Your task to perform on an android device: clear history in the chrome app Image 0: 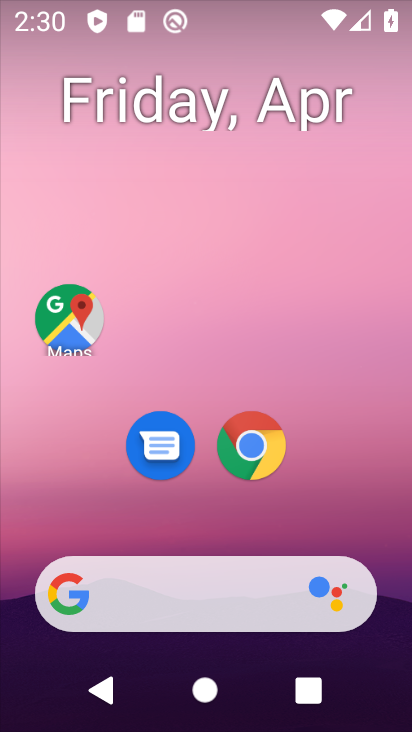
Step 0: click (257, 449)
Your task to perform on an android device: clear history in the chrome app Image 1: 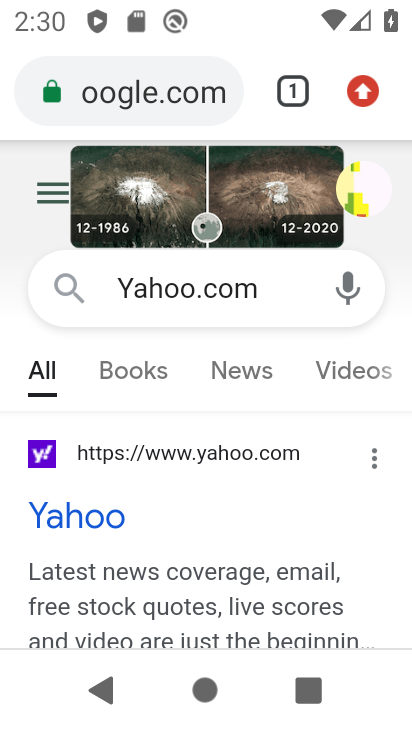
Step 1: click (363, 88)
Your task to perform on an android device: clear history in the chrome app Image 2: 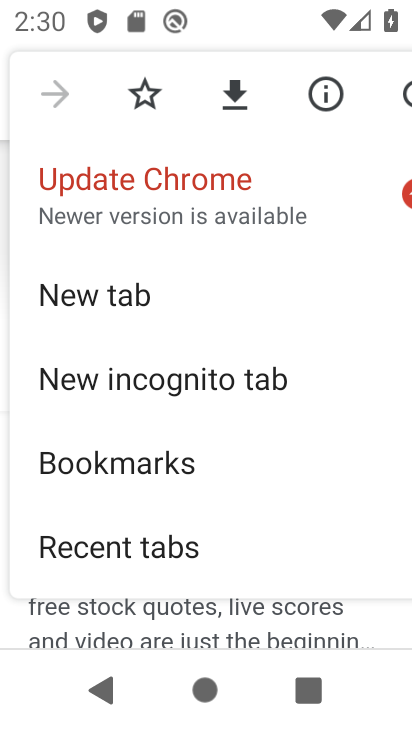
Step 2: drag from (221, 443) to (253, 291)
Your task to perform on an android device: clear history in the chrome app Image 3: 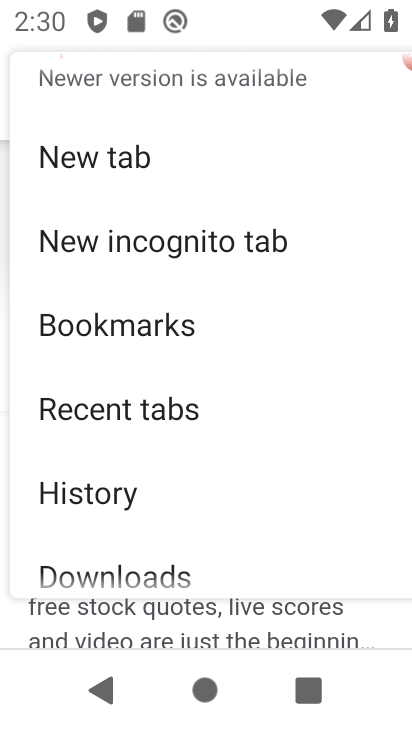
Step 3: drag from (209, 391) to (235, 263)
Your task to perform on an android device: clear history in the chrome app Image 4: 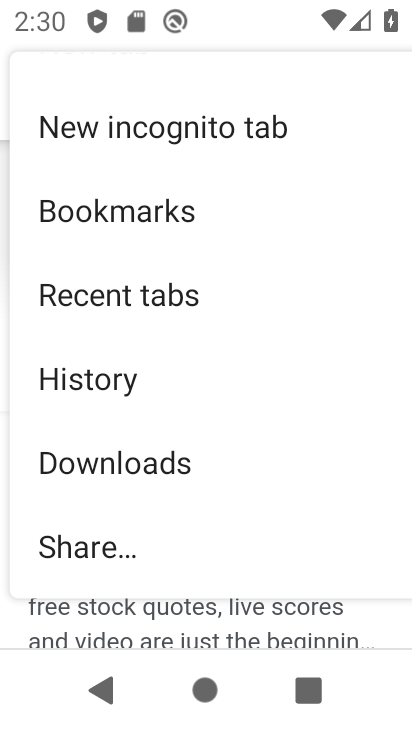
Step 4: click (77, 377)
Your task to perform on an android device: clear history in the chrome app Image 5: 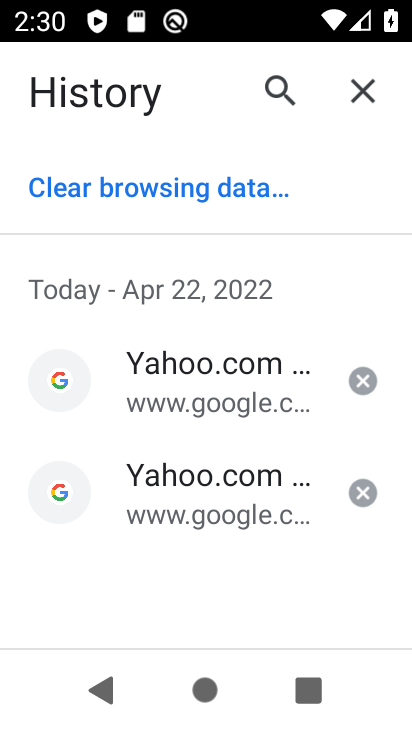
Step 5: click (169, 181)
Your task to perform on an android device: clear history in the chrome app Image 6: 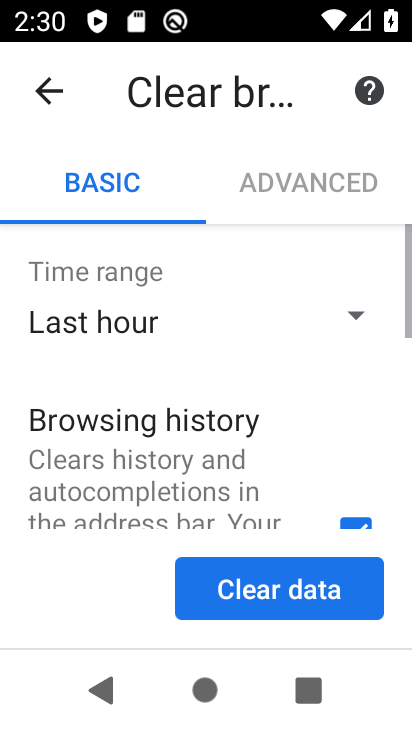
Step 6: click (348, 311)
Your task to perform on an android device: clear history in the chrome app Image 7: 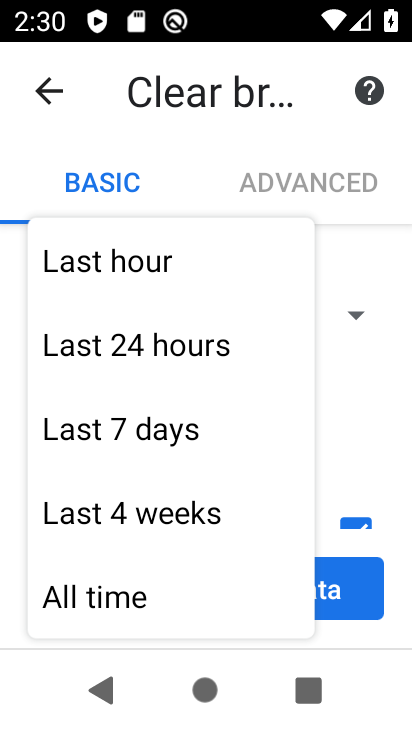
Step 7: click (73, 589)
Your task to perform on an android device: clear history in the chrome app Image 8: 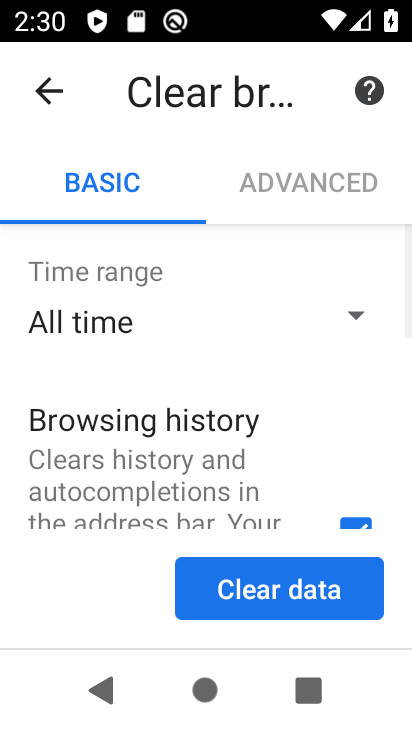
Step 8: click (313, 593)
Your task to perform on an android device: clear history in the chrome app Image 9: 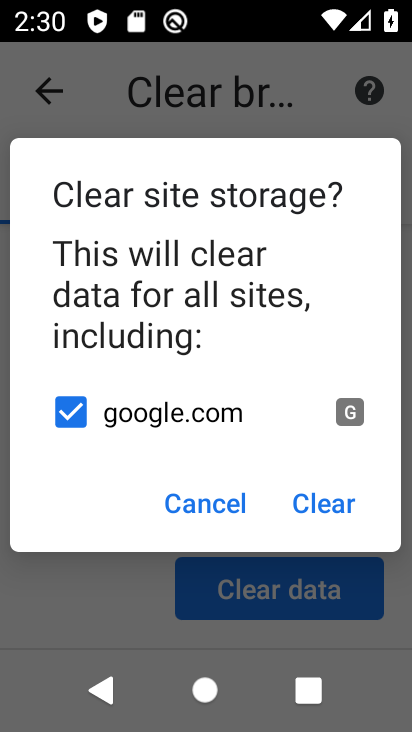
Step 9: click (342, 499)
Your task to perform on an android device: clear history in the chrome app Image 10: 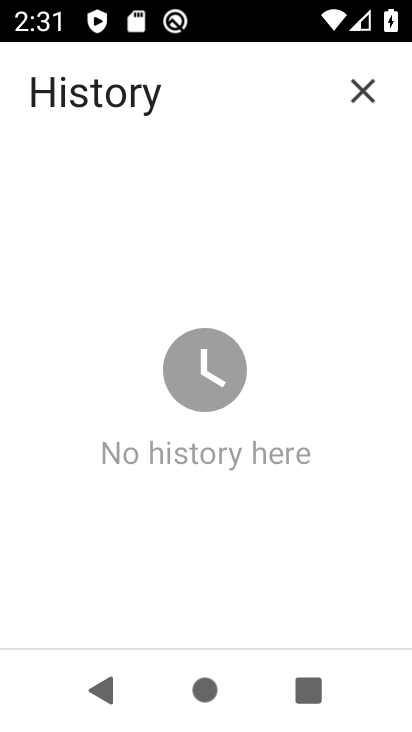
Step 10: task complete